Your task to perform on an android device: delete a single message in the gmail app Image 0: 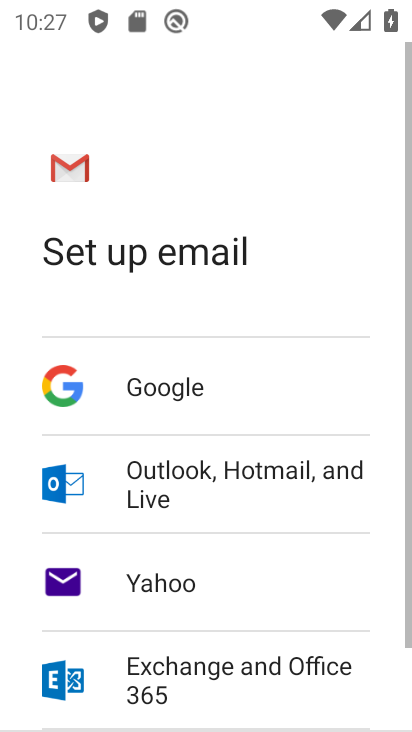
Step 0: press home button
Your task to perform on an android device: delete a single message in the gmail app Image 1: 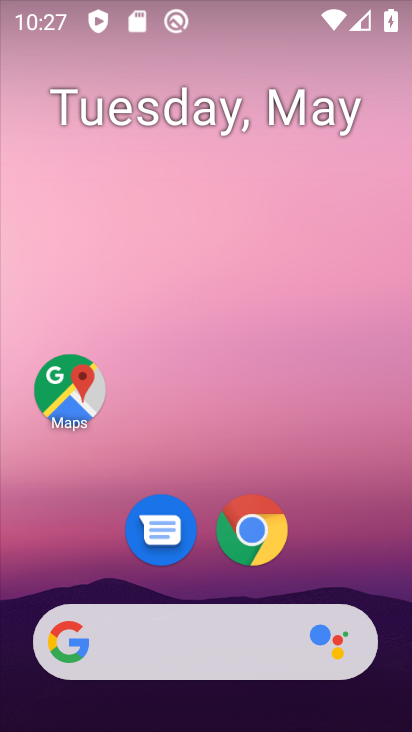
Step 1: drag from (343, 463) to (241, 70)
Your task to perform on an android device: delete a single message in the gmail app Image 2: 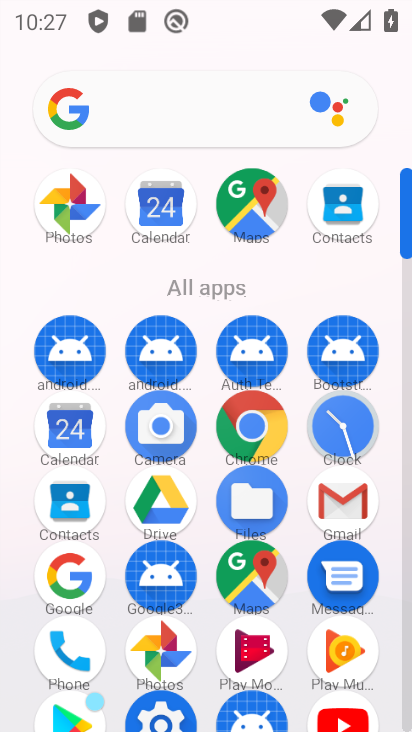
Step 2: click (332, 513)
Your task to perform on an android device: delete a single message in the gmail app Image 3: 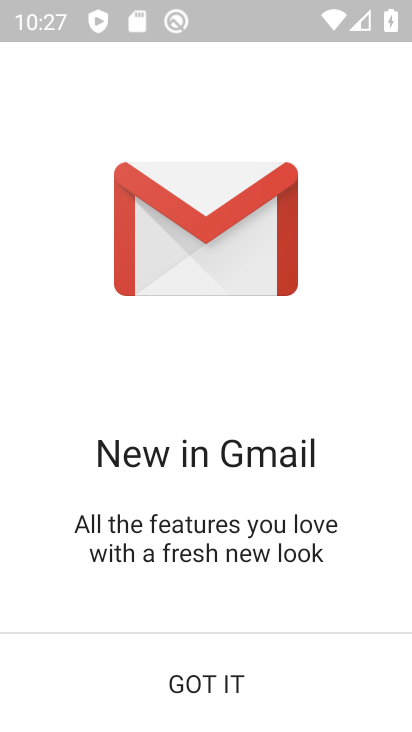
Step 3: click (218, 678)
Your task to perform on an android device: delete a single message in the gmail app Image 4: 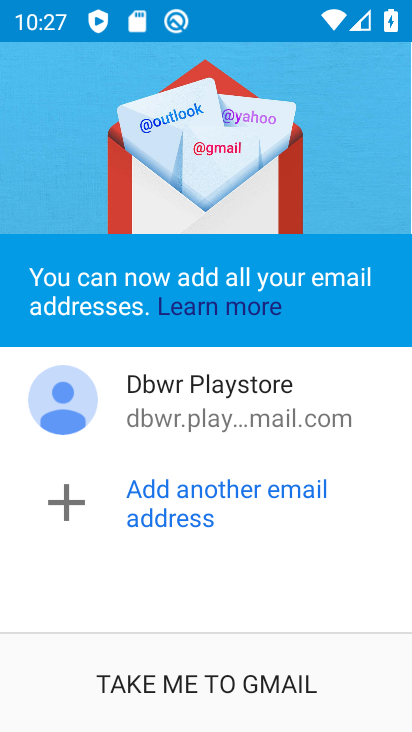
Step 4: click (217, 678)
Your task to perform on an android device: delete a single message in the gmail app Image 5: 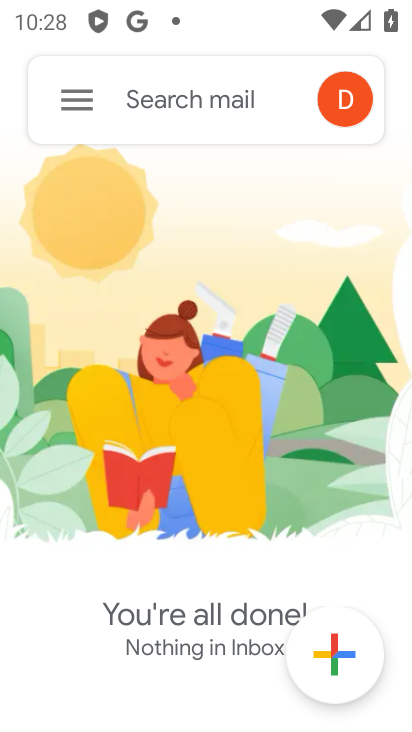
Step 5: click (80, 89)
Your task to perform on an android device: delete a single message in the gmail app Image 6: 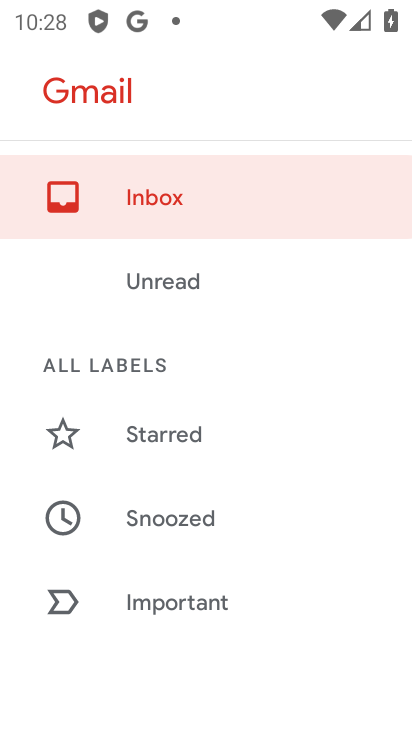
Step 6: drag from (140, 464) to (237, 51)
Your task to perform on an android device: delete a single message in the gmail app Image 7: 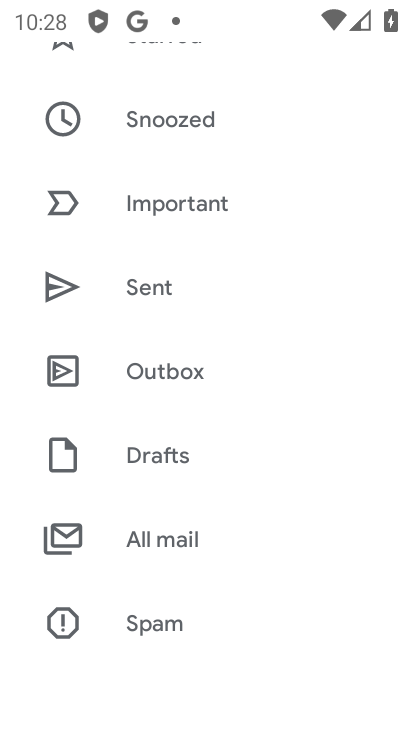
Step 7: click (164, 534)
Your task to perform on an android device: delete a single message in the gmail app Image 8: 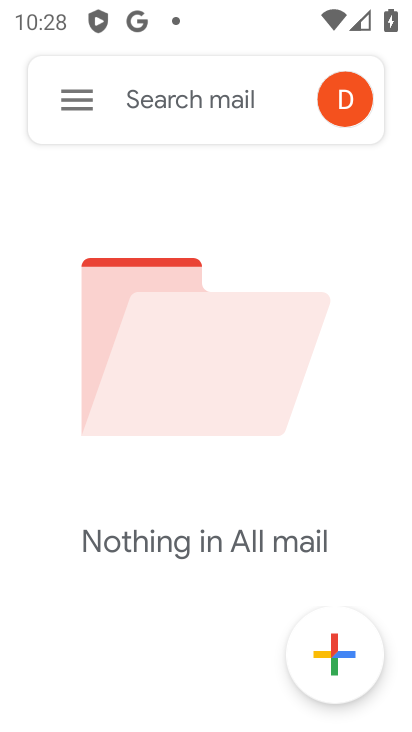
Step 8: task complete